Your task to perform on an android device: open sync settings in chrome Image 0: 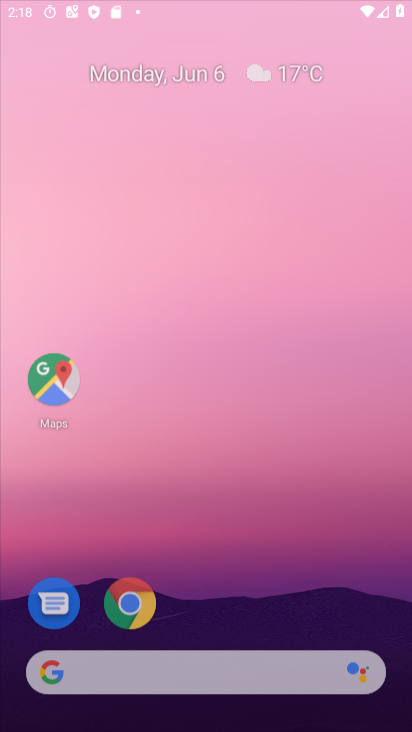
Step 0: drag from (308, 0) to (318, 107)
Your task to perform on an android device: open sync settings in chrome Image 1: 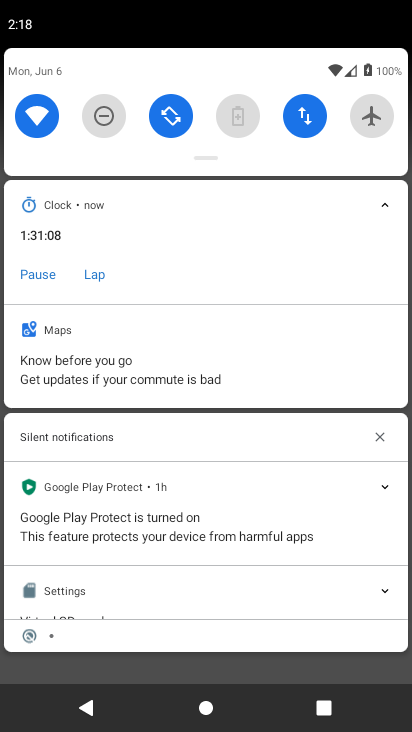
Step 1: drag from (266, 494) to (284, 87)
Your task to perform on an android device: open sync settings in chrome Image 2: 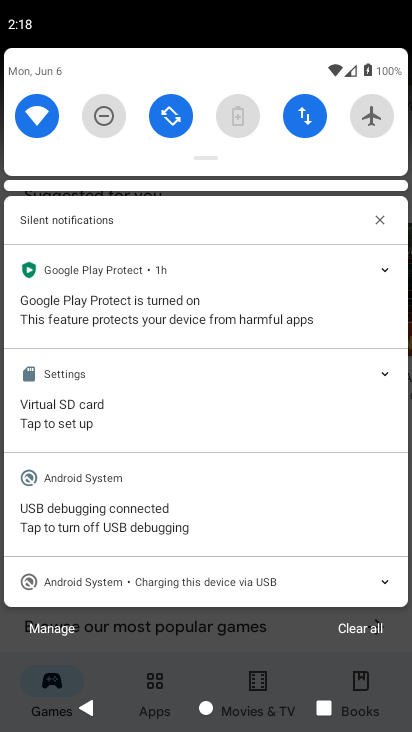
Step 2: press home button
Your task to perform on an android device: open sync settings in chrome Image 3: 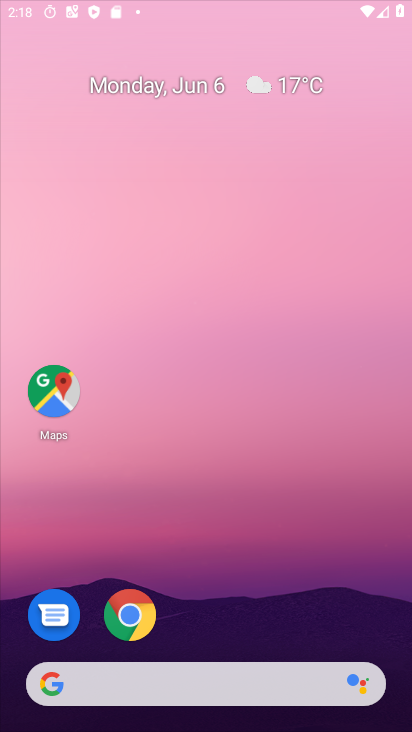
Step 3: drag from (190, 526) to (249, 168)
Your task to perform on an android device: open sync settings in chrome Image 4: 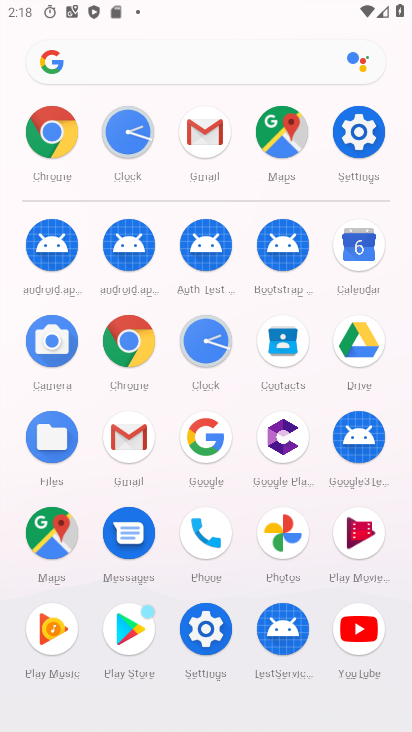
Step 4: click (136, 330)
Your task to perform on an android device: open sync settings in chrome Image 5: 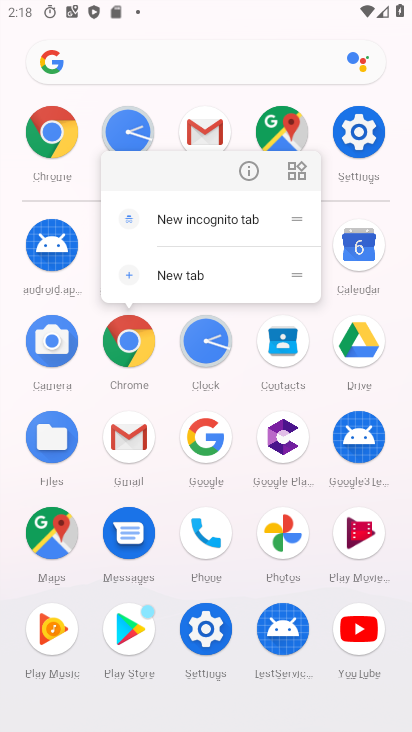
Step 5: click (248, 170)
Your task to perform on an android device: open sync settings in chrome Image 6: 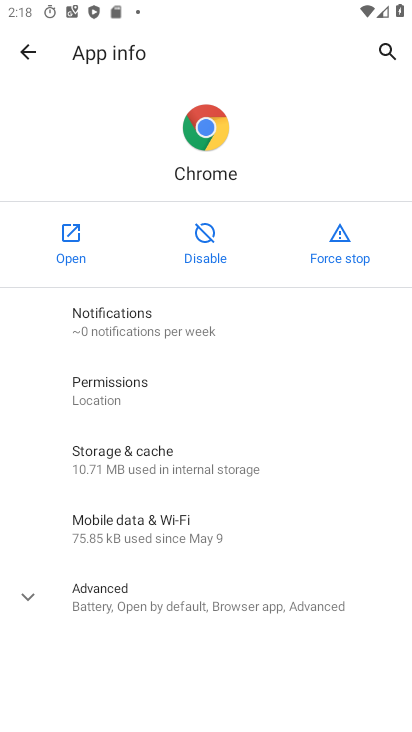
Step 6: click (82, 250)
Your task to perform on an android device: open sync settings in chrome Image 7: 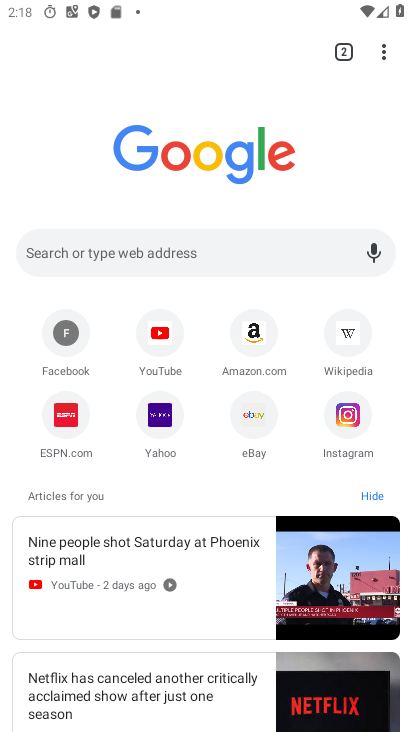
Step 7: click (376, 46)
Your task to perform on an android device: open sync settings in chrome Image 8: 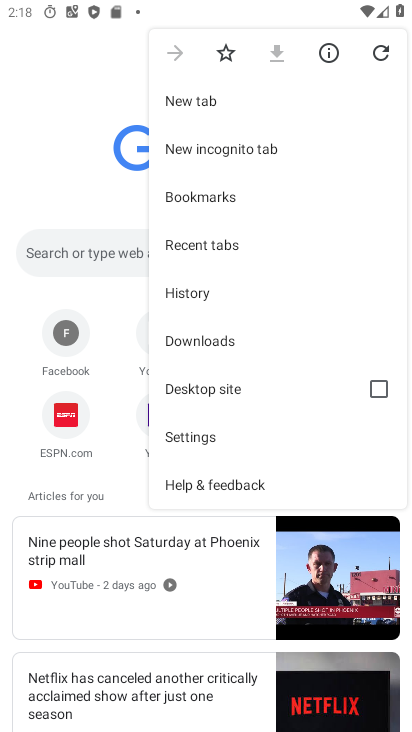
Step 8: click (215, 438)
Your task to perform on an android device: open sync settings in chrome Image 9: 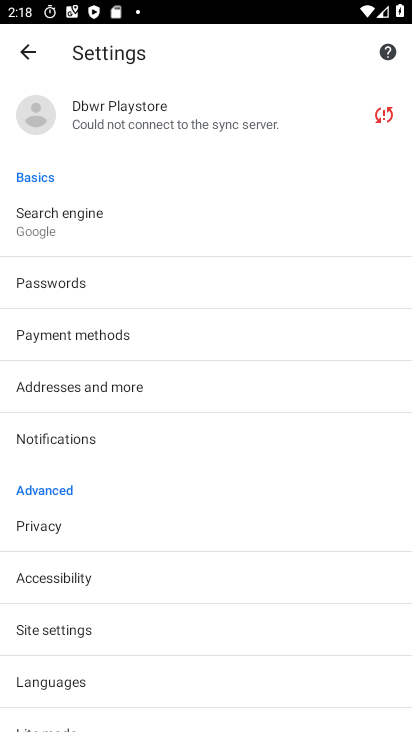
Step 9: drag from (201, 594) to (324, 221)
Your task to perform on an android device: open sync settings in chrome Image 10: 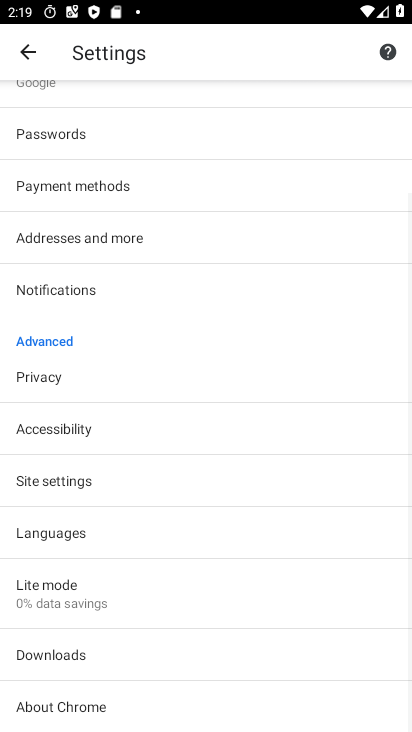
Step 10: click (136, 489)
Your task to perform on an android device: open sync settings in chrome Image 11: 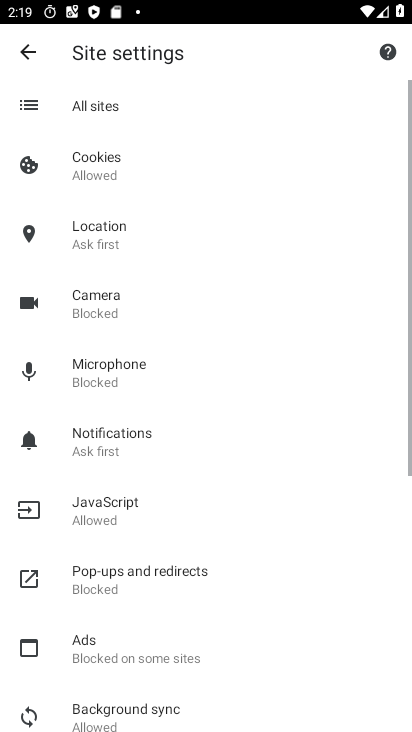
Step 11: drag from (140, 475) to (220, 135)
Your task to perform on an android device: open sync settings in chrome Image 12: 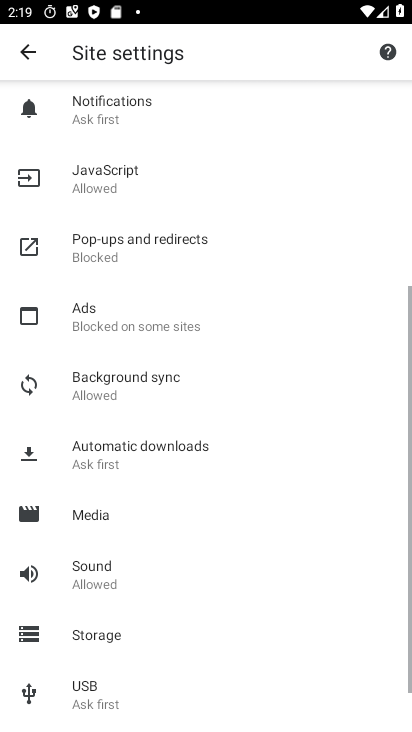
Step 12: drag from (169, 584) to (201, 337)
Your task to perform on an android device: open sync settings in chrome Image 13: 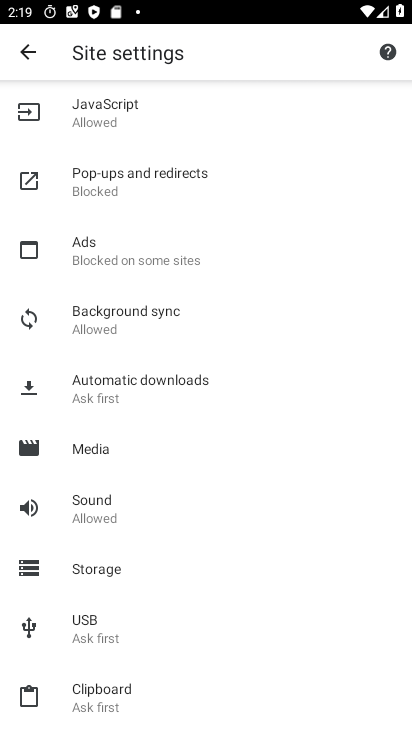
Step 13: drag from (215, 284) to (204, 669)
Your task to perform on an android device: open sync settings in chrome Image 14: 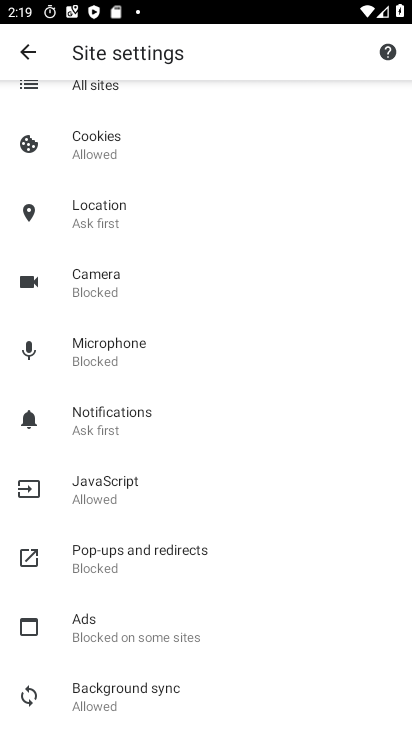
Step 14: drag from (178, 542) to (249, 273)
Your task to perform on an android device: open sync settings in chrome Image 15: 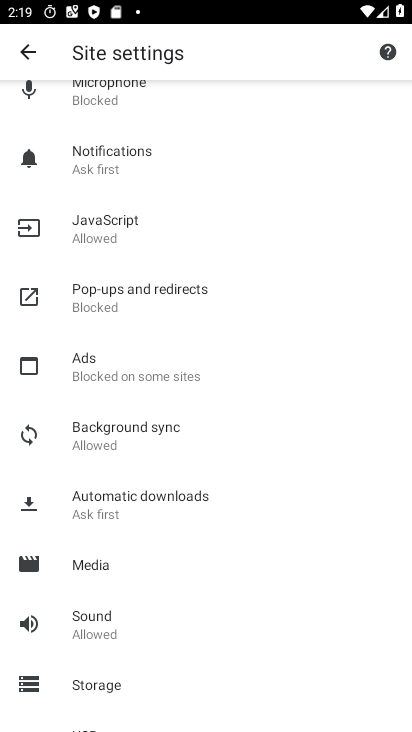
Step 15: click (163, 449)
Your task to perform on an android device: open sync settings in chrome Image 16: 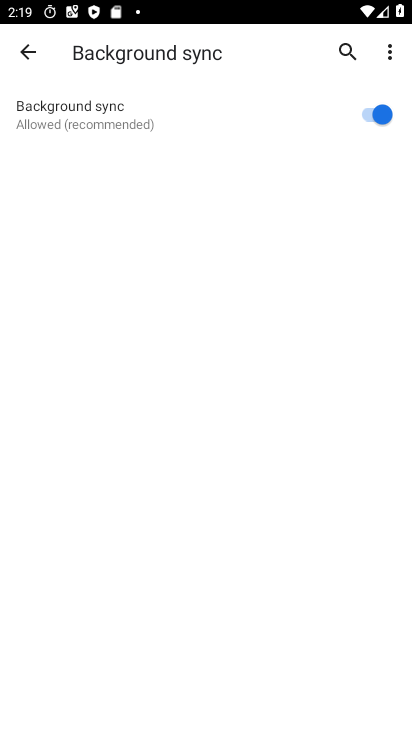
Step 16: task complete